Your task to perform on an android device: Do I have any events this weekend? Image 0: 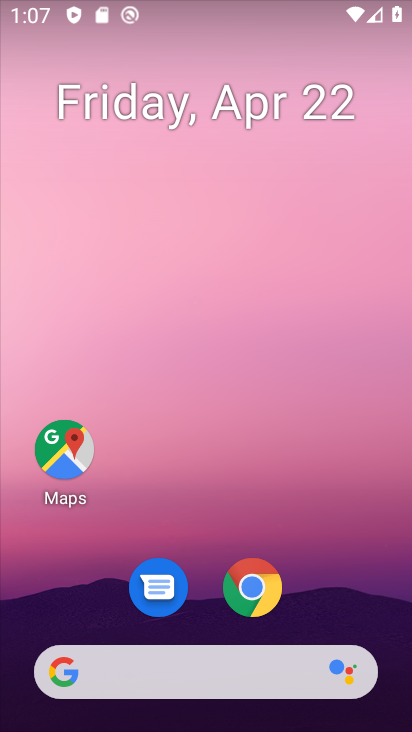
Step 0: drag from (304, 495) to (379, 79)
Your task to perform on an android device: Do I have any events this weekend? Image 1: 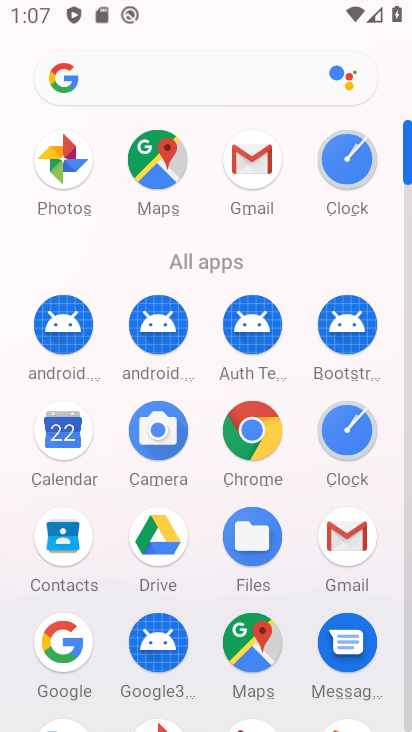
Step 1: click (66, 449)
Your task to perform on an android device: Do I have any events this weekend? Image 2: 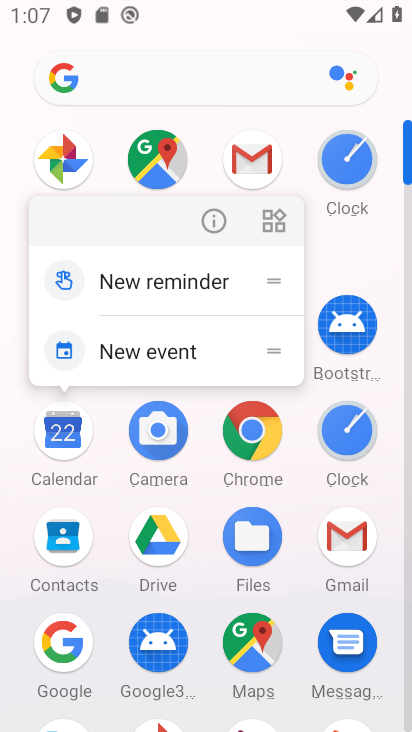
Step 2: click (54, 431)
Your task to perform on an android device: Do I have any events this weekend? Image 3: 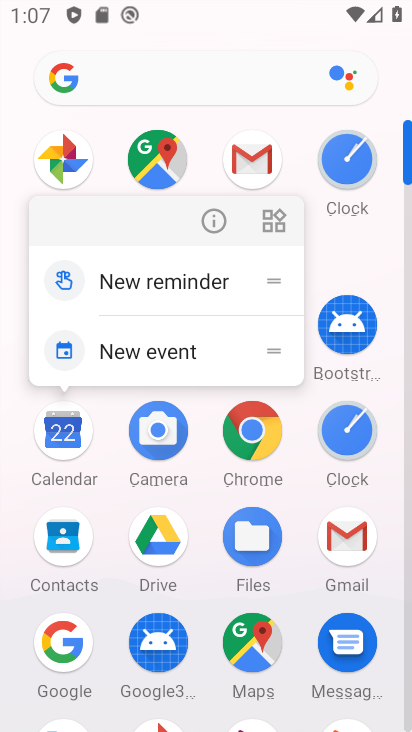
Step 3: click (54, 431)
Your task to perform on an android device: Do I have any events this weekend? Image 4: 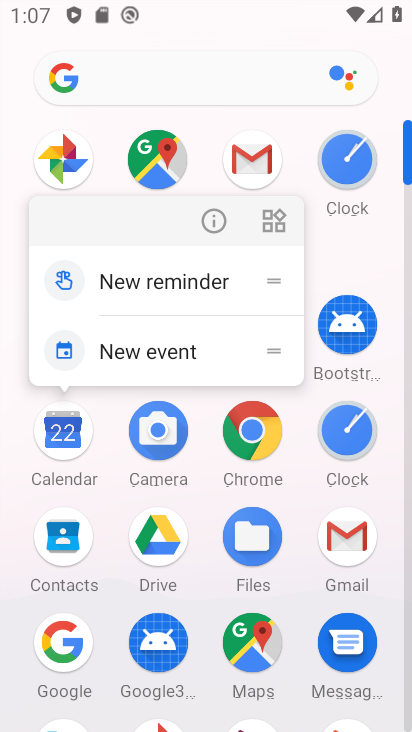
Step 4: click (54, 431)
Your task to perform on an android device: Do I have any events this weekend? Image 5: 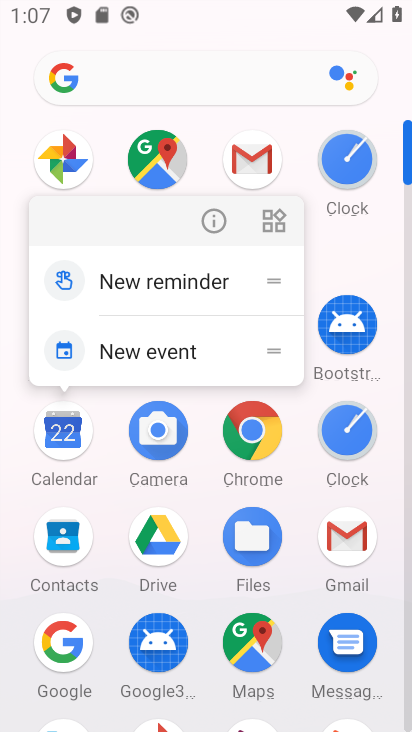
Step 5: click (54, 431)
Your task to perform on an android device: Do I have any events this weekend? Image 6: 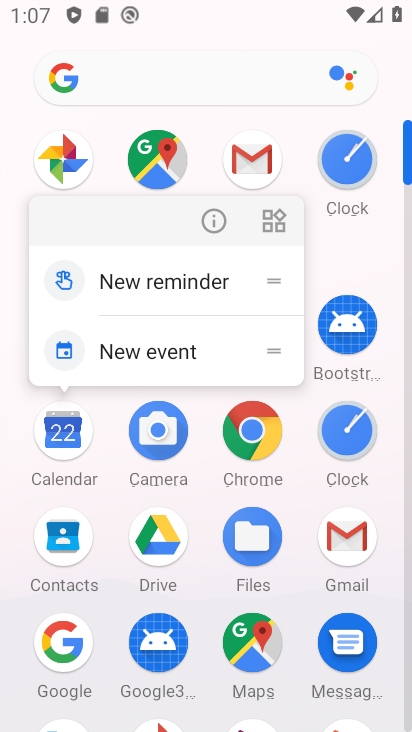
Step 6: click (54, 431)
Your task to perform on an android device: Do I have any events this weekend? Image 7: 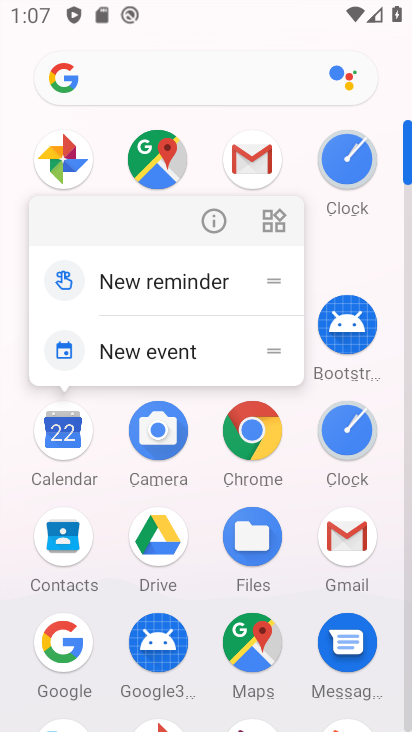
Step 7: click (54, 431)
Your task to perform on an android device: Do I have any events this weekend? Image 8: 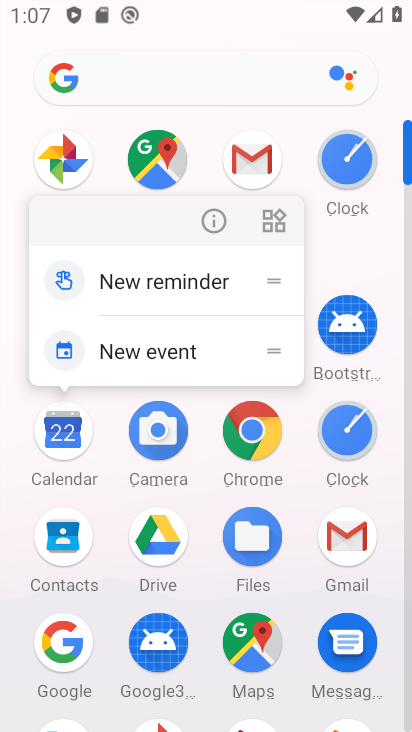
Step 8: click (54, 431)
Your task to perform on an android device: Do I have any events this weekend? Image 9: 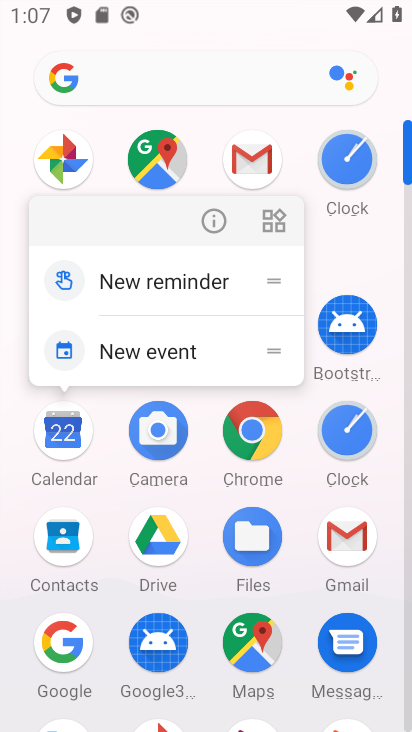
Step 9: click (54, 431)
Your task to perform on an android device: Do I have any events this weekend? Image 10: 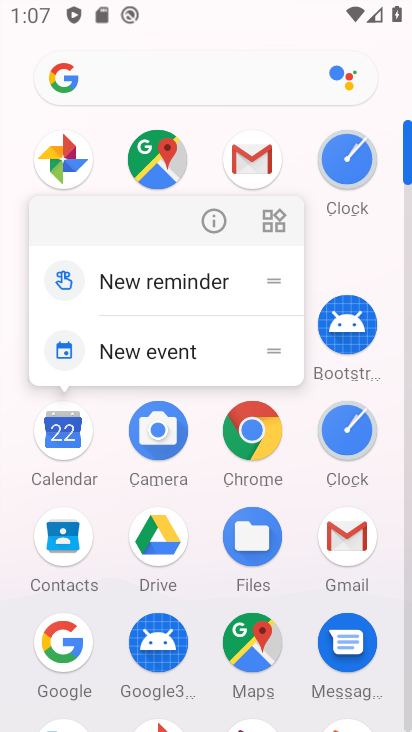
Step 10: click (54, 431)
Your task to perform on an android device: Do I have any events this weekend? Image 11: 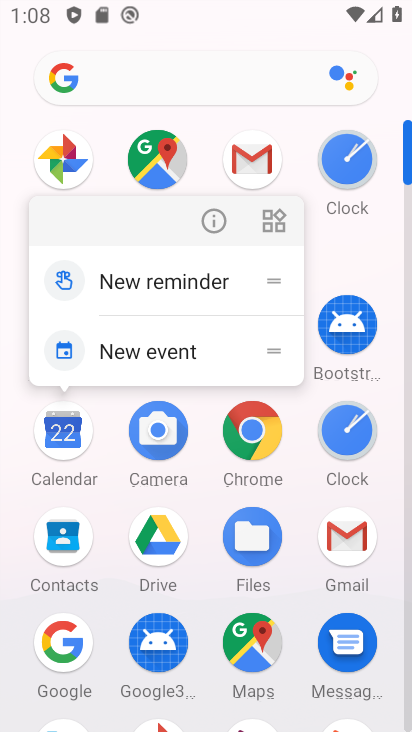
Step 11: click (54, 431)
Your task to perform on an android device: Do I have any events this weekend? Image 12: 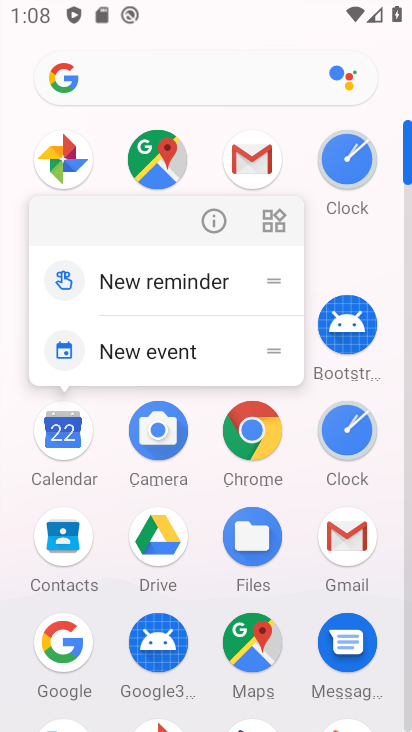
Step 12: click (54, 431)
Your task to perform on an android device: Do I have any events this weekend? Image 13: 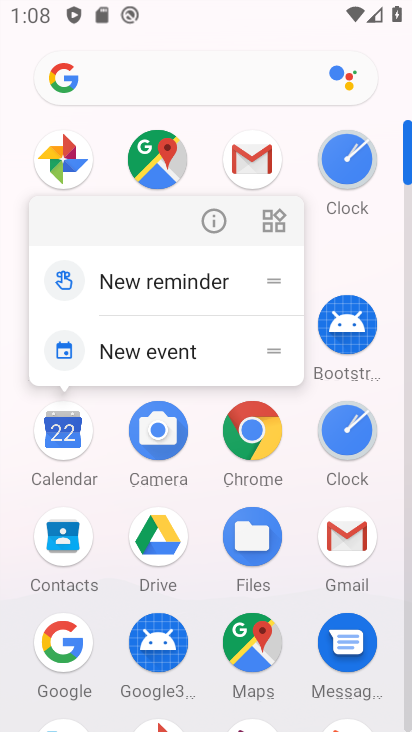
Step 13: click (54, 431)
Your task to perform on an android device: Do I have any events this weekend? Image 14: 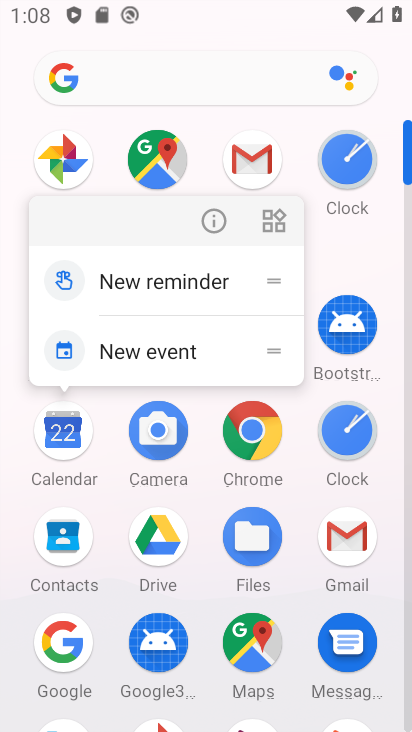
Step 14: click (54, 431)
Your task to perform on an android device: Do I have any events this weekend? Image 15: 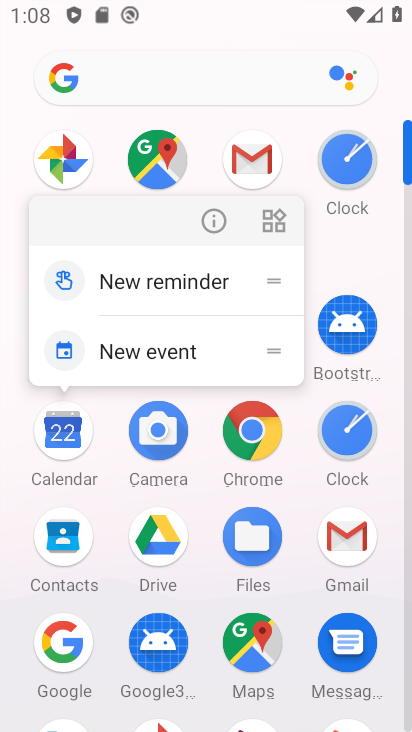
Step 15: click (54, 431)
Your task to perform on an android device: Do I have any events this weekend? Image 16: 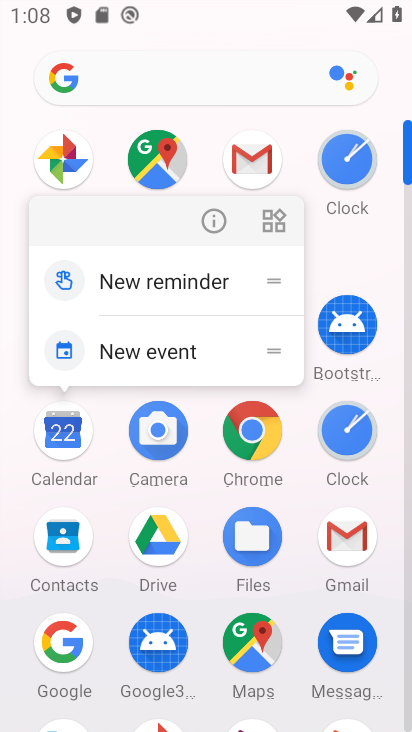
Step 16: click (54, 431)
Your task to perform on an android device: Do I have any events this weekend? Image 17: 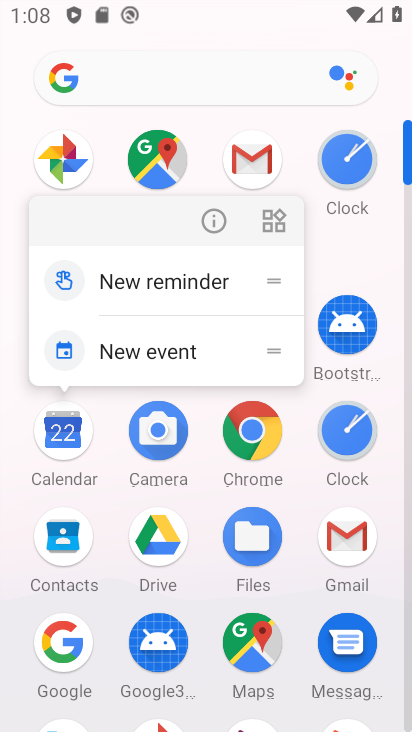
Step 17: click (54, 431)
Your task to perform on an android device: Do I have any events this weekend? Image 18: 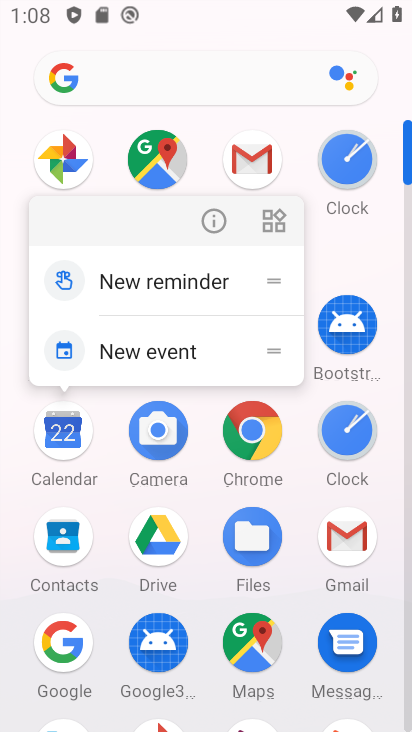
Step 18: click (54, 431)
Your task to perform on an android device: Do I have any events this weekend? Image 19: 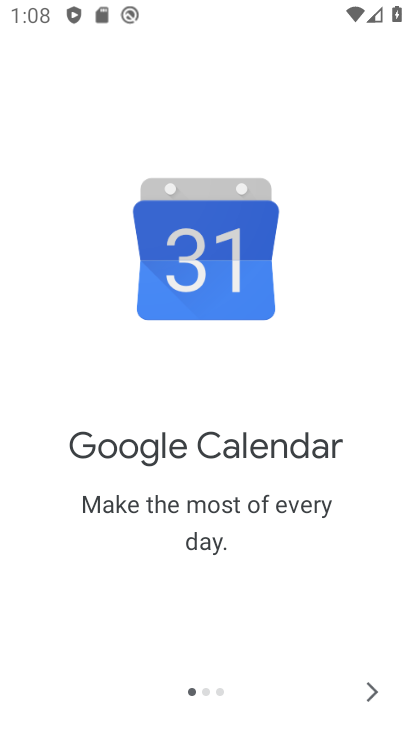
Step 19: click (54, 431)
Your task to perform on an android device: Do I have any events this weekend? Image 20: 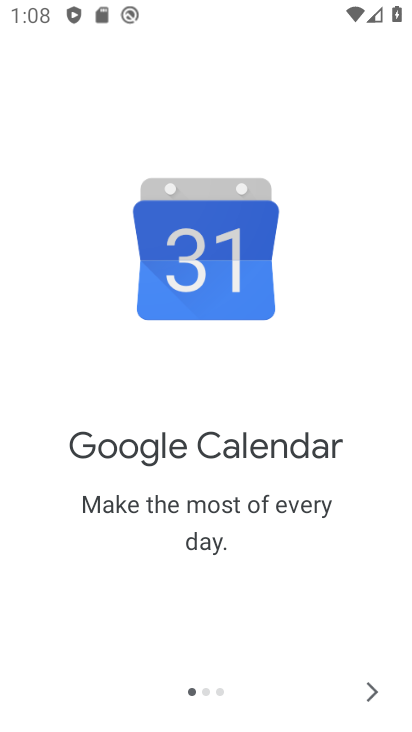
Step 20: click (373, 699)
Your task to perform on an android device: Do I have any events this weekend? Image 21: 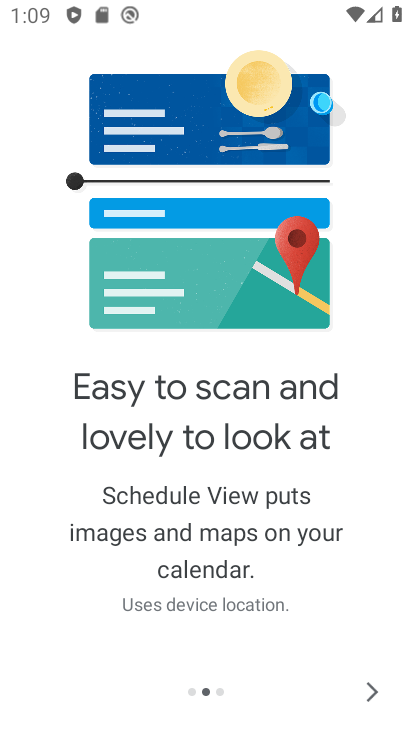
Step 21: click (366, 697)
Your task to perform on an android device: Do I have any events this weekend? Image 22: 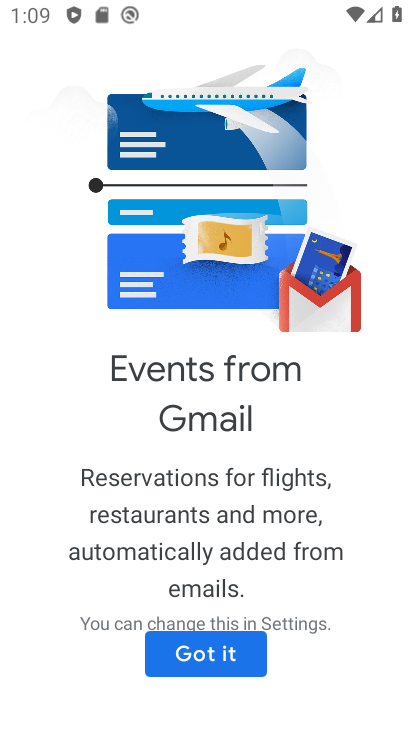
Step 22: click (202, 648)
Your task to perform on an android device: Do I have any events this weekend? Image 23: 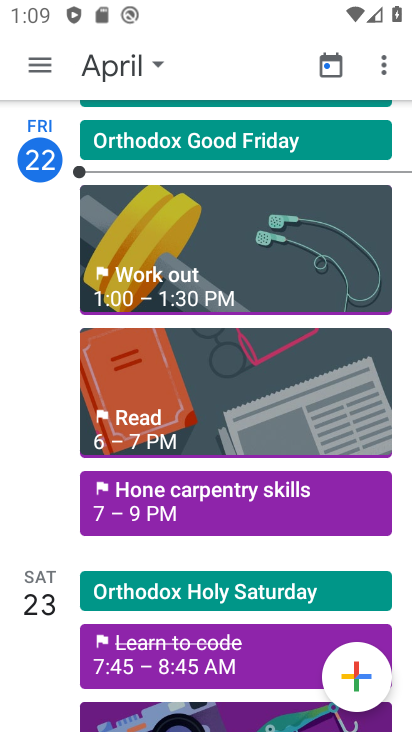
Step 23: task complete